Your task to perform on an android device: Check the news Image 0: 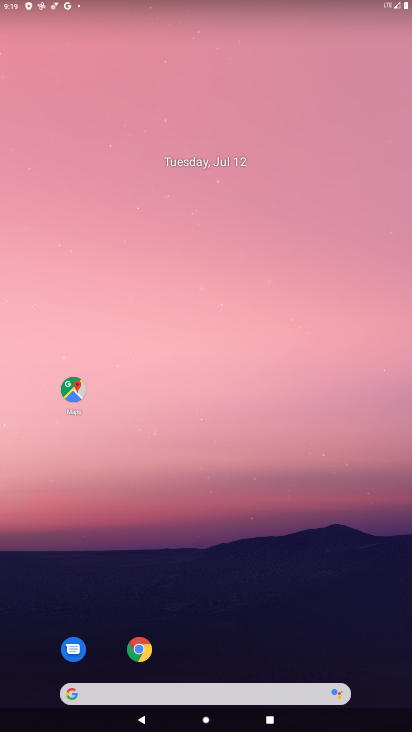
Step 0: drag from (316, 629) to (277, 110)
Your task to perform on an android device: Check the news Image 1: 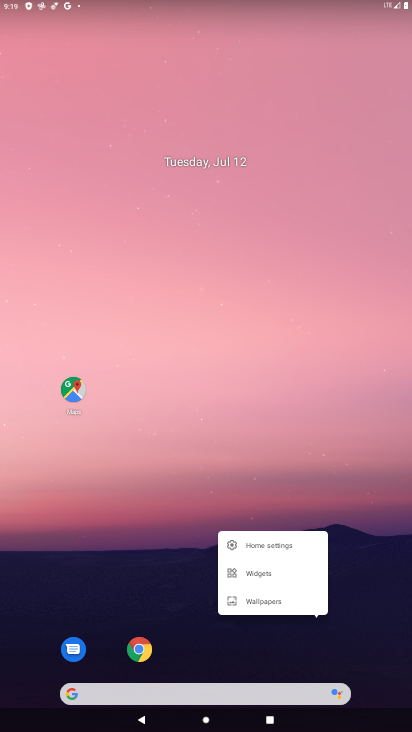
Step 1: click (202, 421)
Your task to perform on an android device: Check the news Image 2: 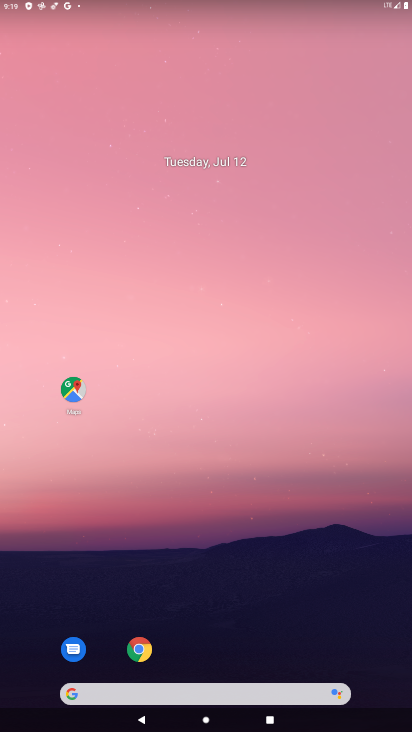
Step 2: drag from (253, 653) to (235, 181)
Your task to perform on an android device: Check the news Image 3: 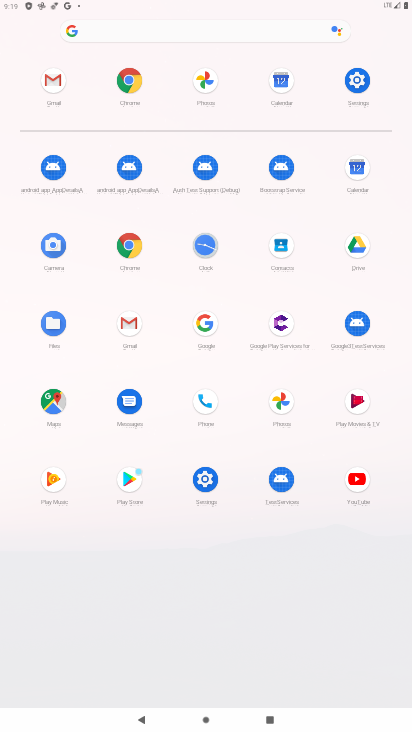
Step 3: click (246, 23)
Your task to perform on an android device: Check the news Image 4: 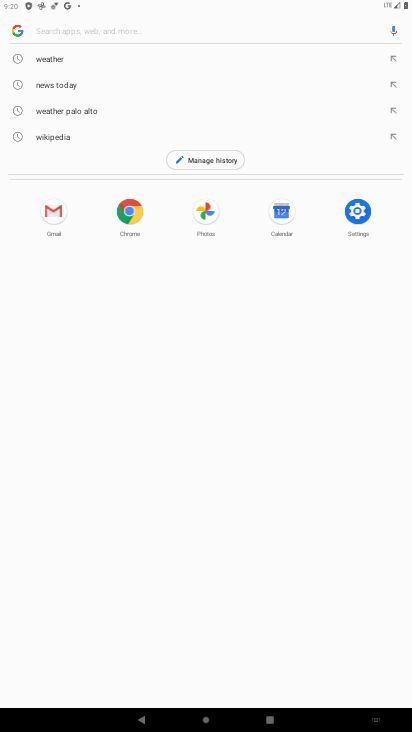
Step 4: click (175, 80)
Your task to perform on an android device: Check the news Image 5: 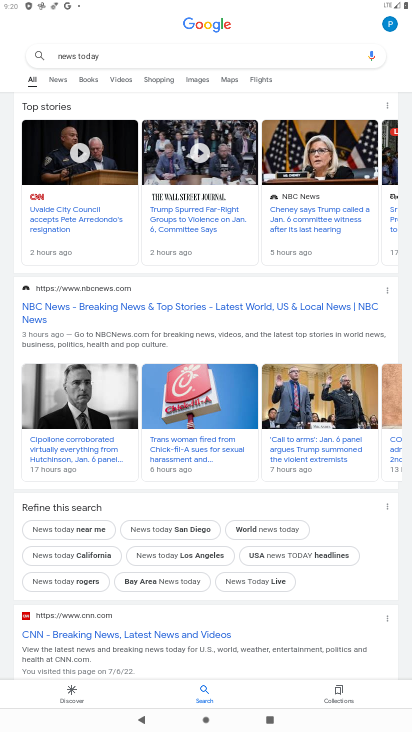
Step 5: task complete